Your task to perform on an android device: turn vacation reply on in the gmail app Image 0: 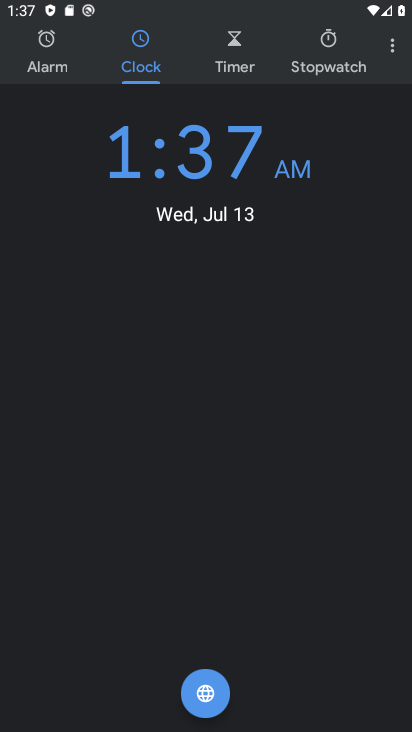
Step 0: press home button
Your task to perform on an android device: turn vacation reply on in the gmail app Image 1: 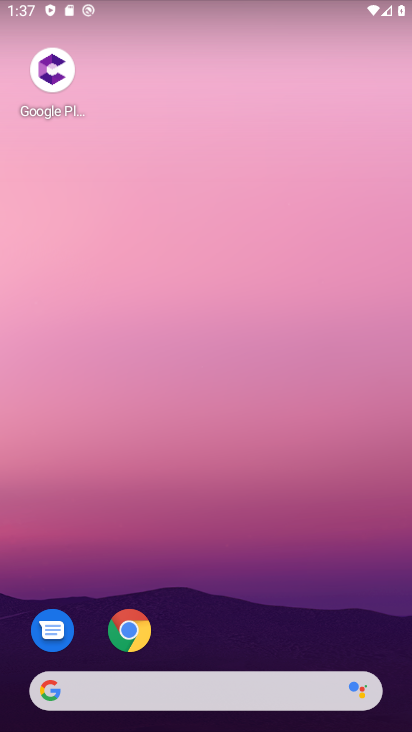
Step 1: drag from (217, 652) to (262, 136)
Your task to perform on an android device: turn vacation reply on in the gmail app Image 2: 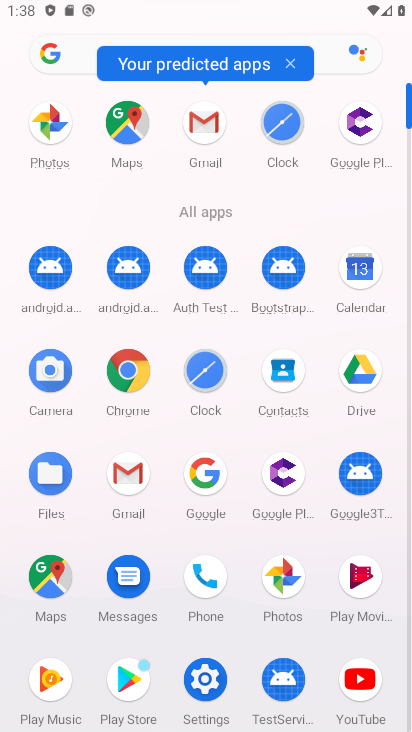
Step 2: click (213, 143)
Your task to perform on an android device: turn vacation reply on in the gmail app Image 3: 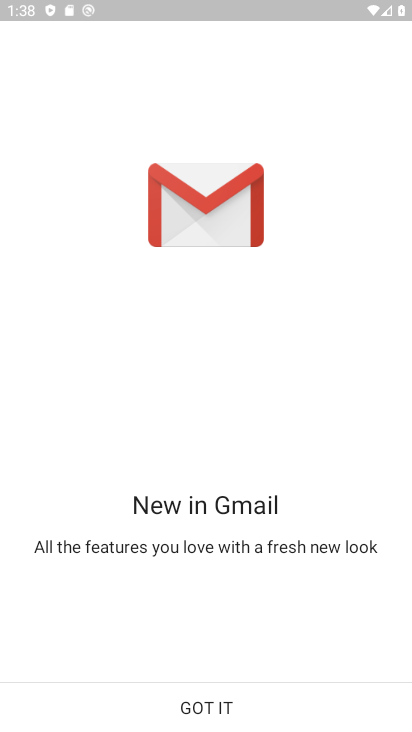
Step 3: click (219, 707)
Your task to perform on an android device: turn vacation reply on in the gmail app Image 4: 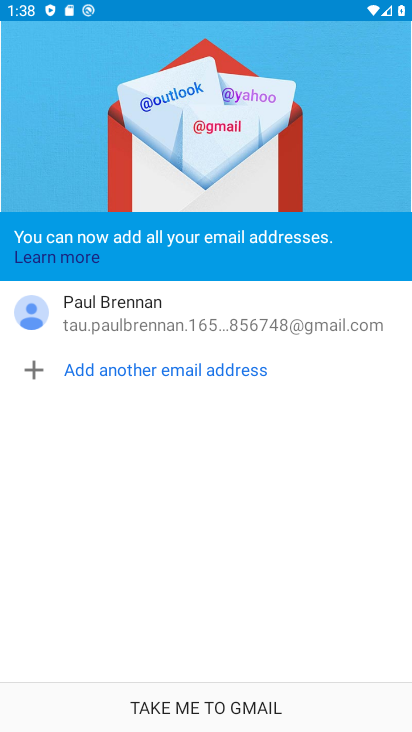
Step 4: click (213, 703)
Your task to perform on an android device: turn vacation reply on in the gmail app Image 5: 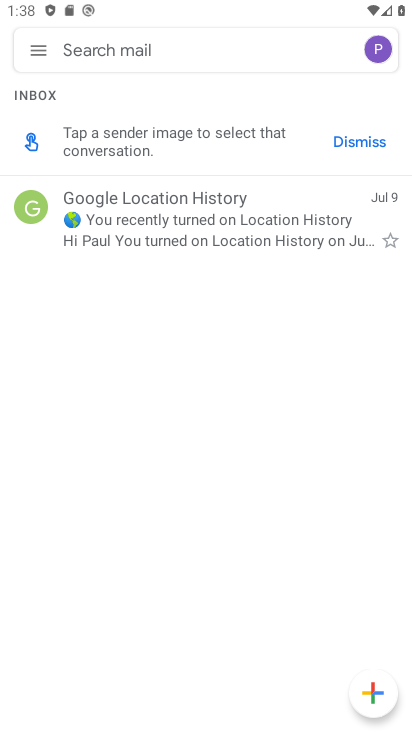
Step 5: click (40, 53)
Your task to perform on an android device: turn vacation reply on in the gmail app Image 6: 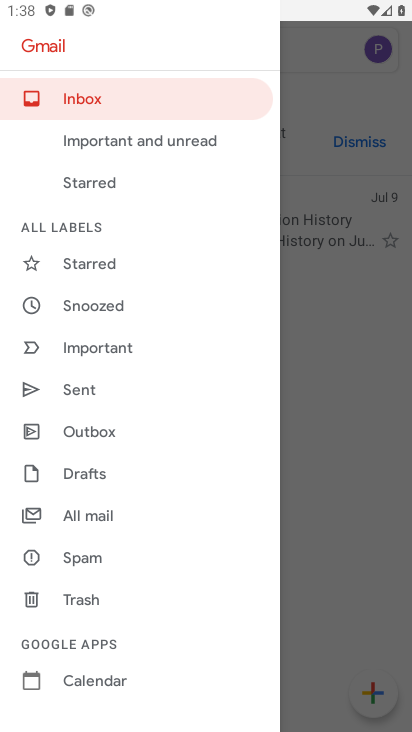
Step 6: drag from (115, 627) to (150, 340)
Your task to perform on an android device: turn vacation reply on in the gmail app Image 7: 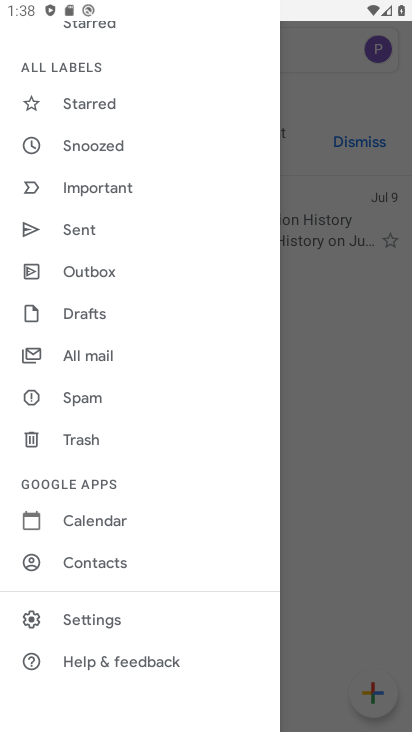
Step 7: click (111, 623)
Your task to perform on an android device: turn vacation reply on in the gmail app Image 8: 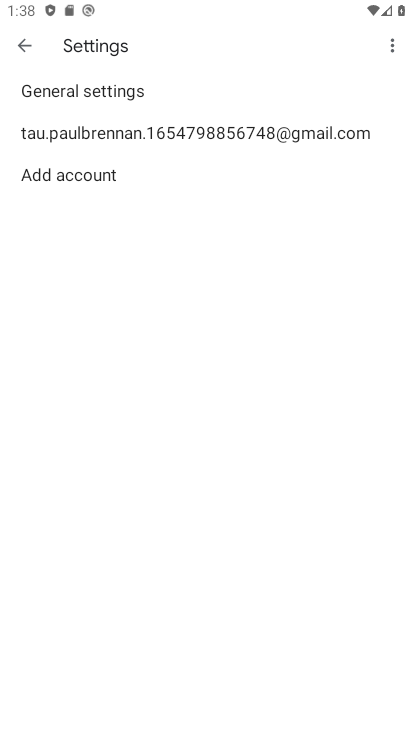
Step 8: click (259, 124)
Your task to perform on an android device: turn vacation reply on in the gmail app Image 9: 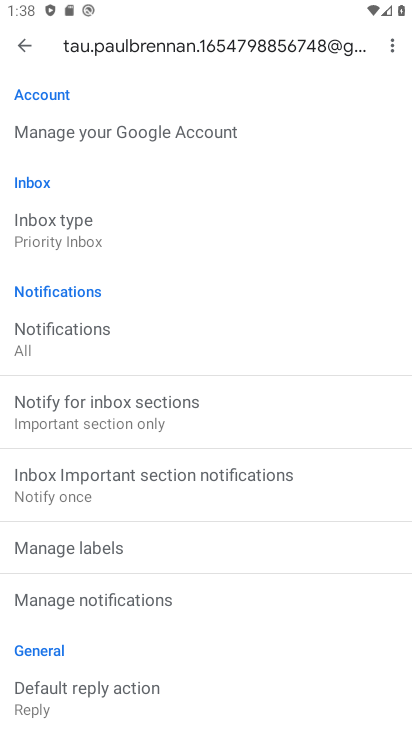
Step 9: drag from (158, 600) to (181, 252)
Your task to perform on an android device: turn vacation reply on in the gmail app Image 10: 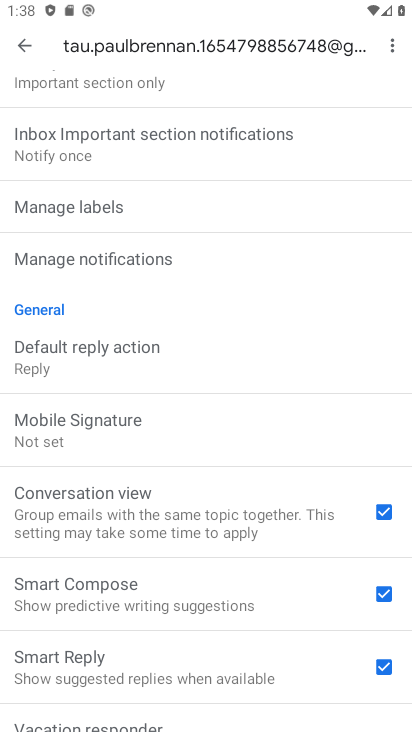
Step 10: drag from (140, 521) to (197, 224)
Your task to perform on an android device: turn vacation reply on in the gmail app Image 11: 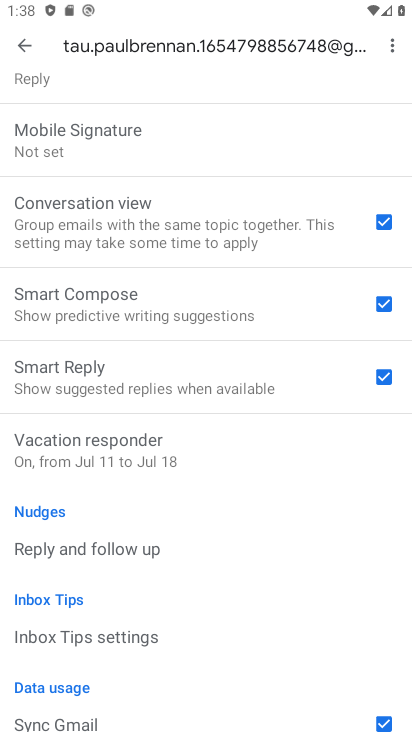
Step 11: click (205, 454)
Your task to perform on an android device: turn vacation reply on in the gmail app Image 12: 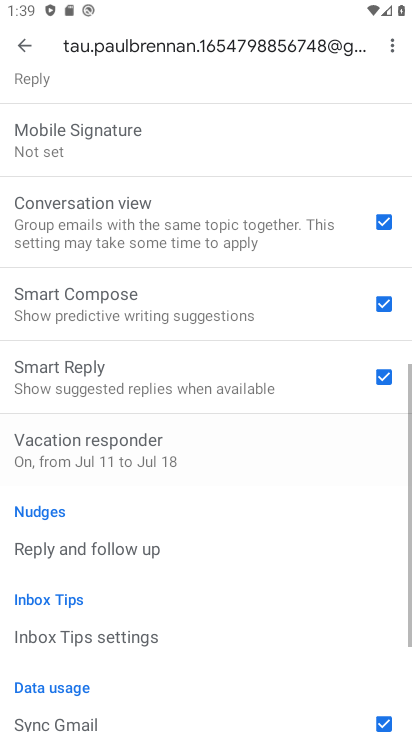
Step 12: click (205, 454)
Your task to perform on an android device: turn vacation reply on in the gmail app Image 13: 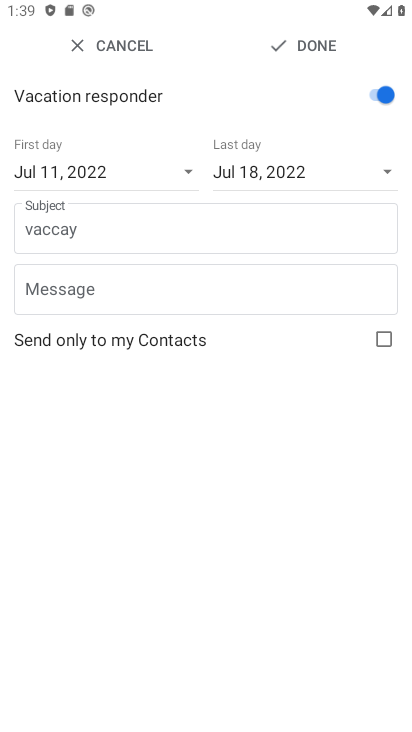
Step 13: task complete